Your task to perform on an android device: set an alarm Image 0: 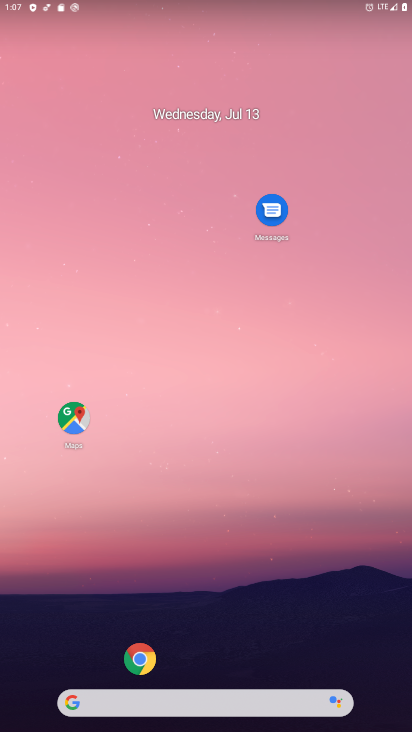
Step 0: drag from (18, 699) to (281, 25)
Your task to perform on an android device: set an alarm Image 1: 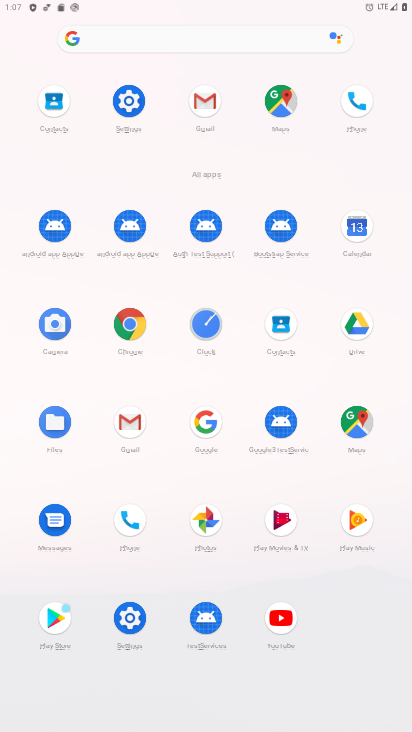
Step 1: click (212, 345)
Your task to perform on an android device: set an alarm Image 2: 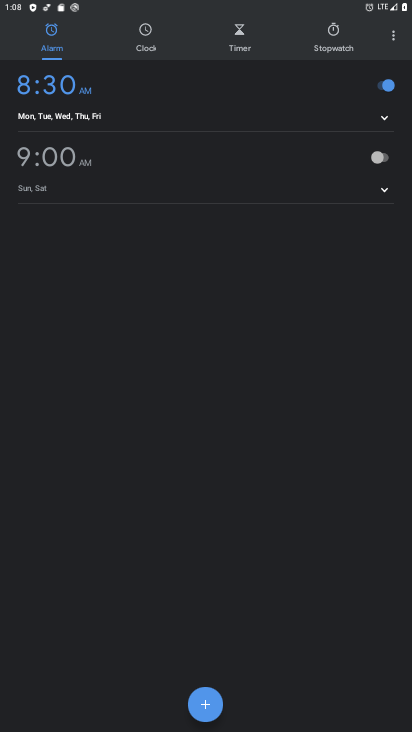
Step 2: task complete